Your task to perform on an android device: turn off data saver in the chrome app Image 0: 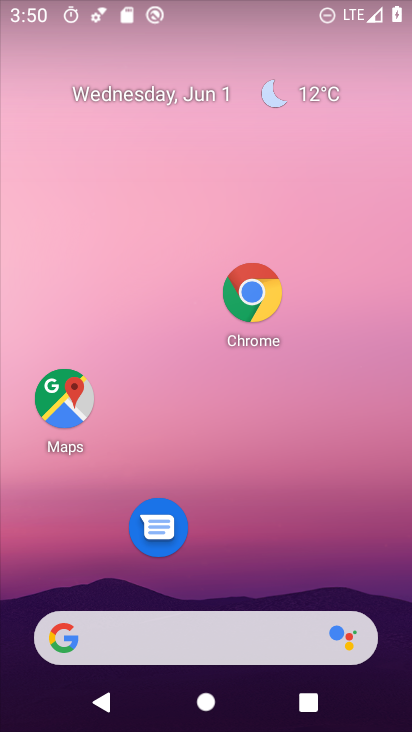
Step 0: click (268, 318)
Your task to perform on an android device: turn off data saver in the chrome app Image 1: 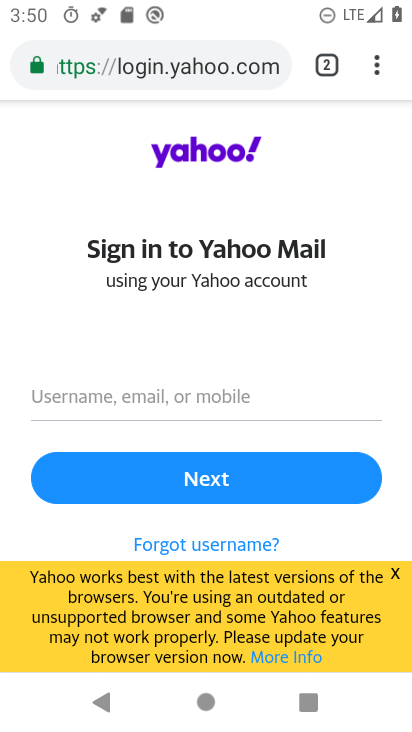
Step 1: click (370, 72)
Your task to perform on an android device: turn off data saver in the chrome app Image 2: 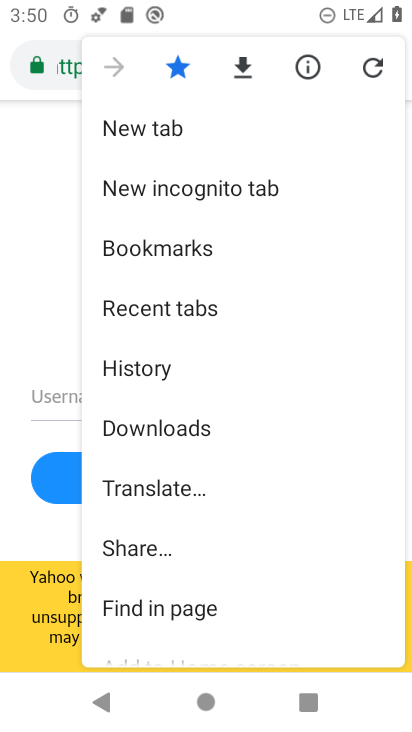
Step 2: drag from (194, 509) to (232, 259)
Your task to perform on an android device: turn off data saver in the chrome app Image 3: 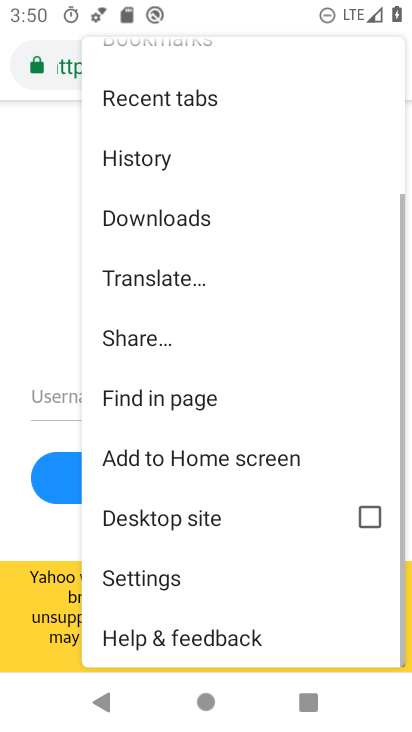
Step 3: drag from (208, 619) to (254, 342)
Your task to perform on an android device: turn off data saver in the chrome app Image 4: 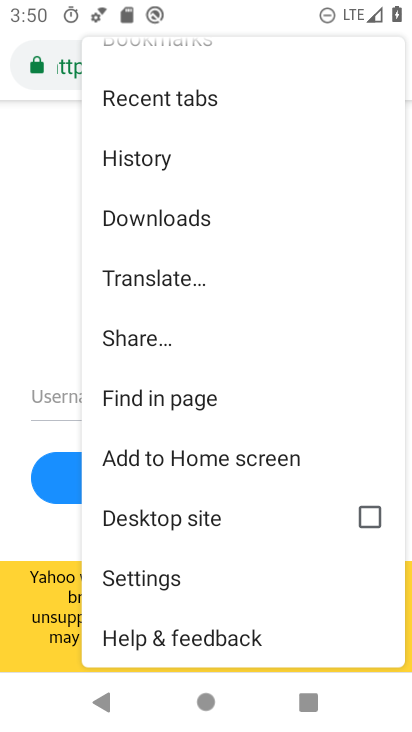
Step 4: click (209, 579)
Your task to perform on an android device: turn off data saver in the chrome app Image 5: 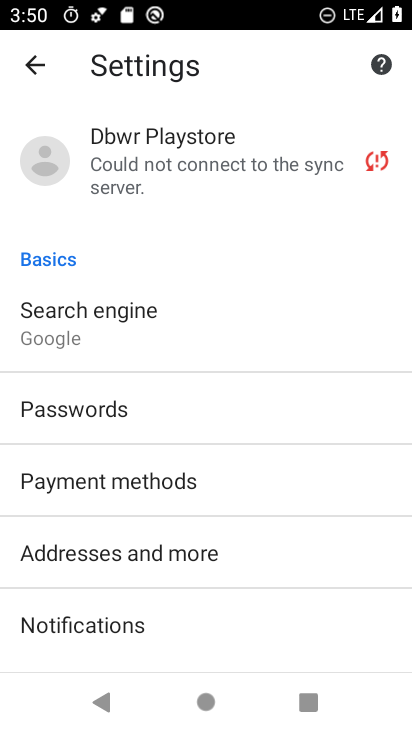
Step 5: drag from (191, 570) to (251, 274)
Your task to perform on an android device: turn off data saver in the chrome app Image 6: 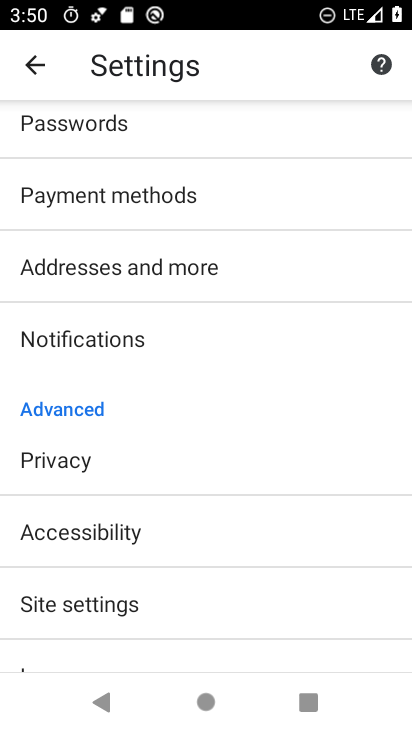
Step 6: drag from (163, 550) to (229, 232)
Your task to perform on an android device: turn off data saver in the chrome app Image 7: 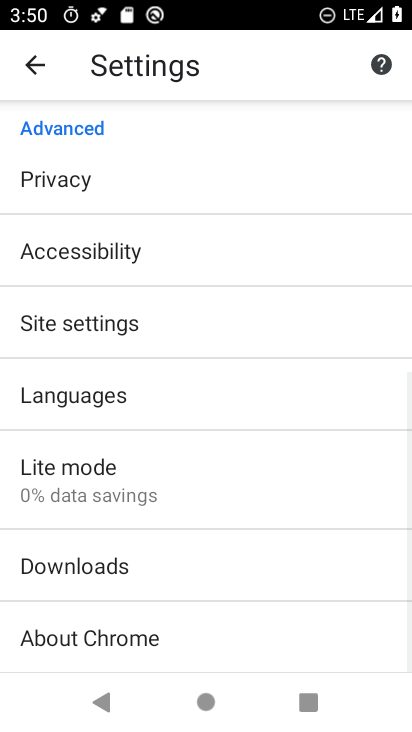
Step 7: click (168, 493)
Your task to perform on an android device: turn off data saver in the chrome app Image 8: 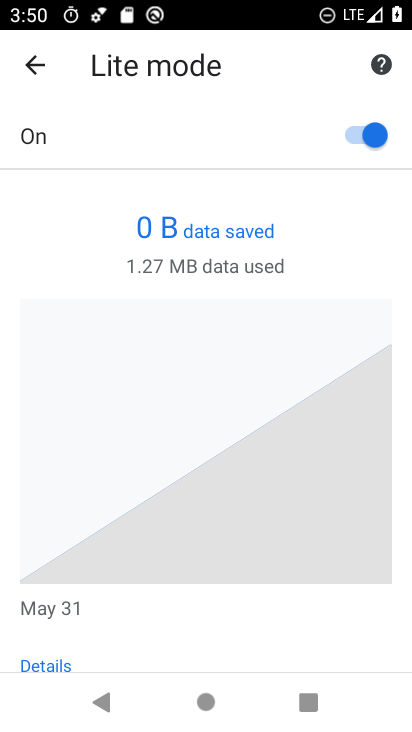
Step 8: click (356, 141)
Your task to perform on an android device: turn off data saver in the chrome app Image 9: 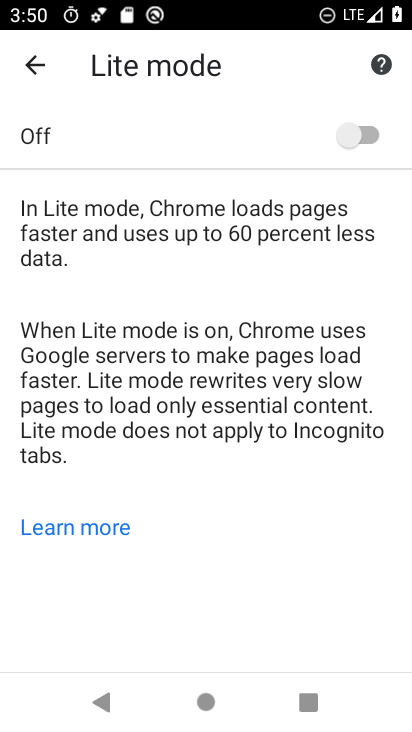
Step 9: task complete